Your task to perform on an android device: Go to Yahoo.com Image 0: 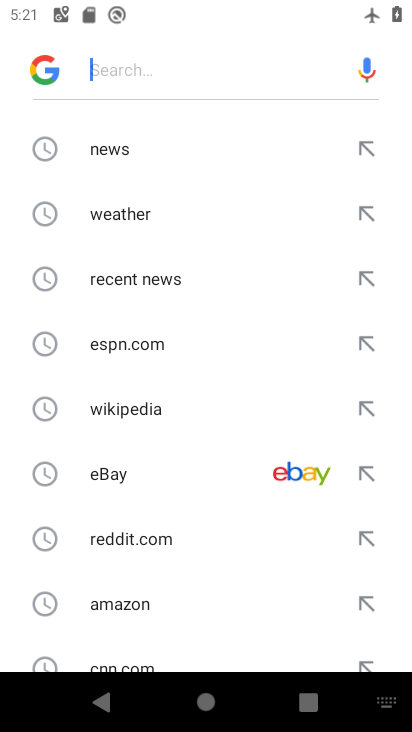
Step 0: press home button
Your task to perform on an android device: Go to Yahoo.com Image 1: 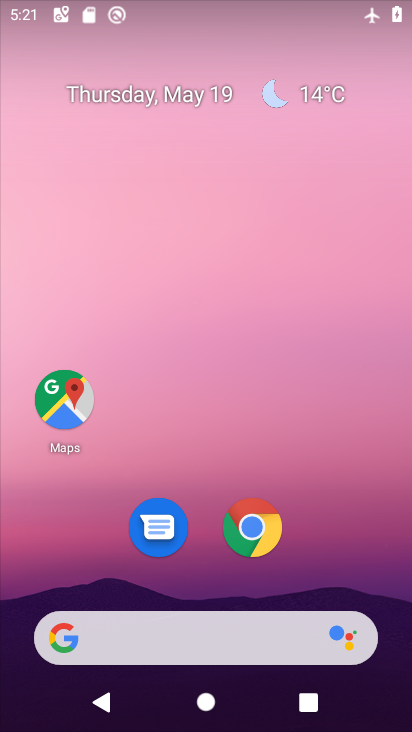
Step 1: click (258, 546)
Your task to perform on an android device: Go to Yahoo.com Image 2: 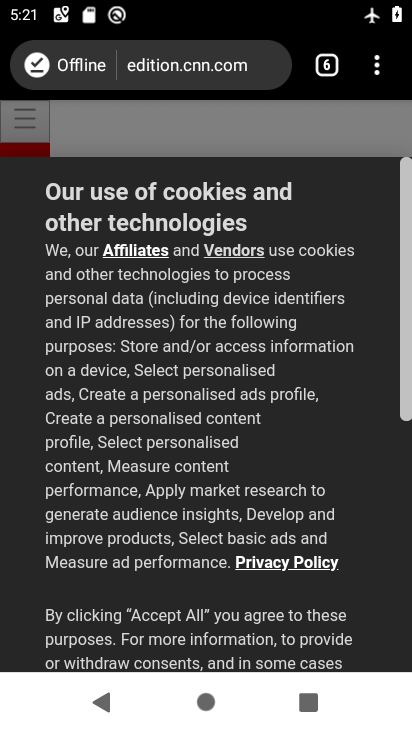
Step 2: click (329, 53)
Your task to perform on an android device: Go to Yahoo.com Image 3: 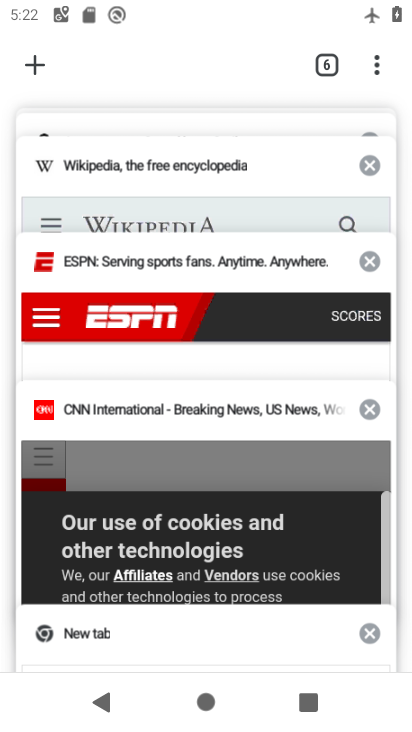
Step 3: click (35, 62)
Your task to perform on an android device: Go to Yahoo.com Image 4: 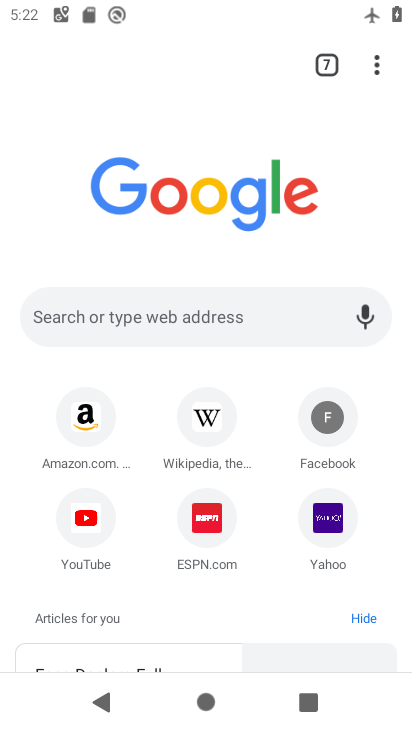
Step 4: click (325, 512)
Your task to perform on an android device: Go to Yahoo.com Image 5: 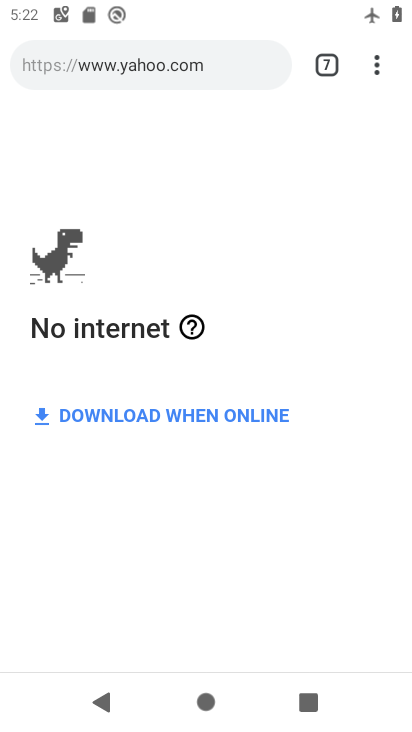
Step 5: task complete